Your task to perform on an android device: toggle show notifications on the lock screen Image 0: 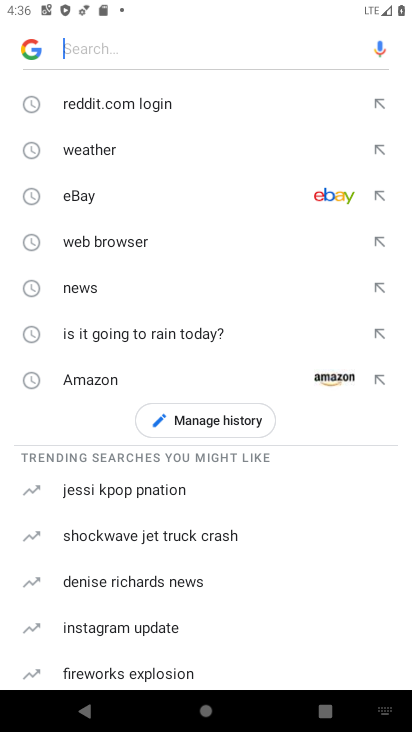
Step 0: press home button
Your task to perform on an android device: toggle show notifications on the lock screen Image 1: 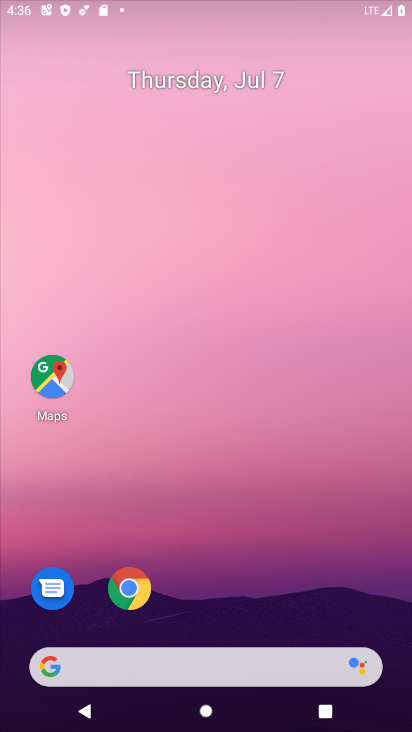
Step 1: drag from (291, 658) to (268, 98)
Your task to perform on an android device: toggle show notifications on the lock screen Image 2: 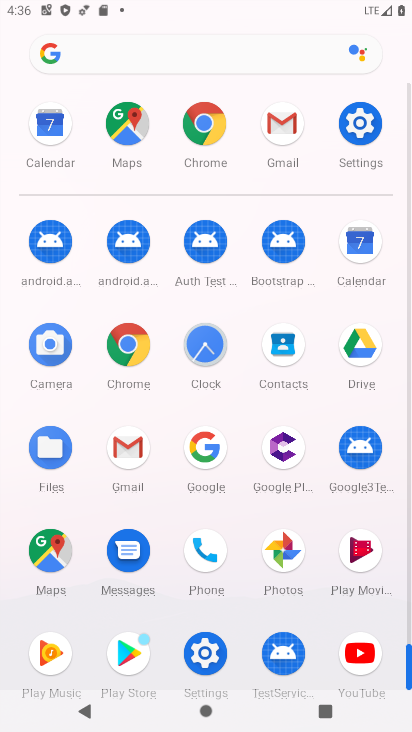
Step 2: click (375, 114)
Your task to perform on an android device: toggle show notifications on the lock screen Image 3: 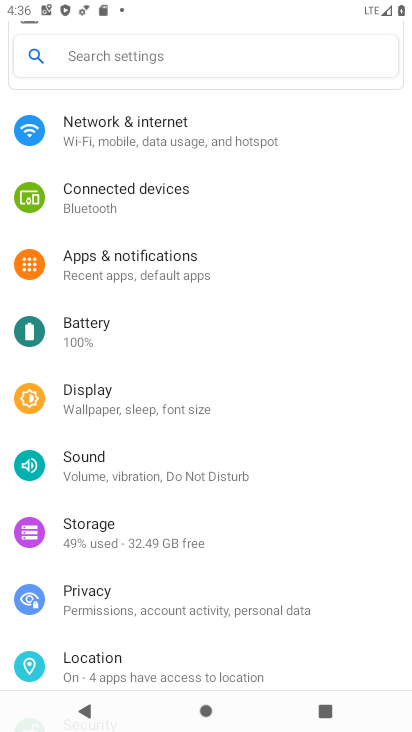
Step 3: click (159, 265)
Your task to perform on an android device: toggle show notifications on the lock screen Image 4: 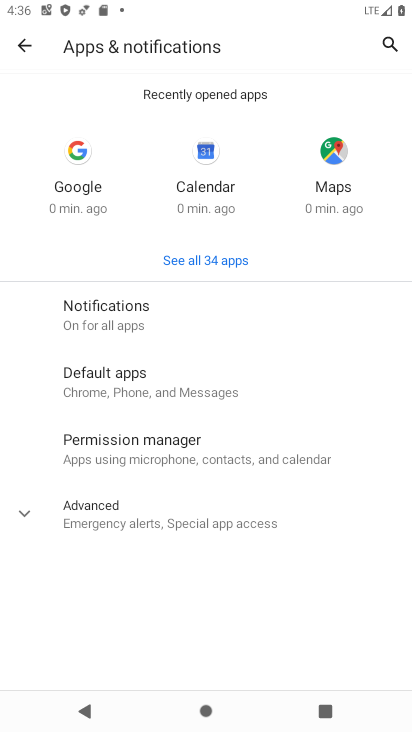
Step 4: click (135, 325)
Your task to perform on an android device: toggle show notifications on the lock screen Image 5: 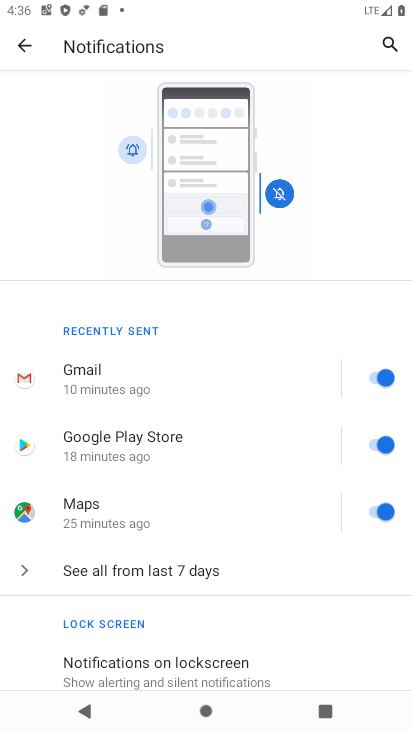
Step 5: drag from (154, 651) to (178, 209)
Your task to perform on an android device: toggle show notifications on the lock screen Image 6: 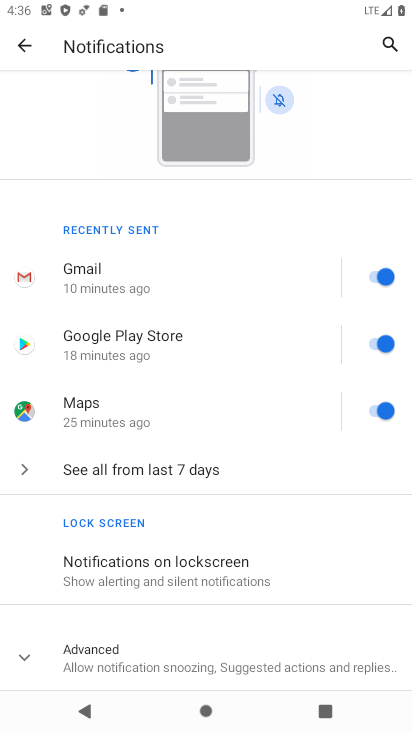
Step 6: click (229, 572)
Your task to perform on an android device: toggle show notifications on the lock screen Image 7: 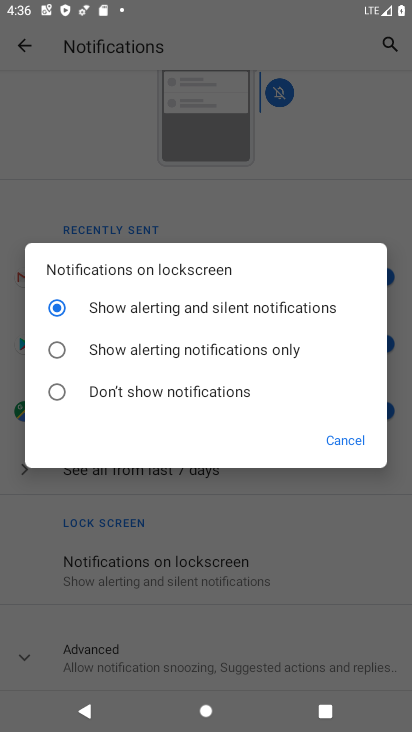
Step 7: task complete